Your task to perform on an android device: Go to wifi settings Image 0: 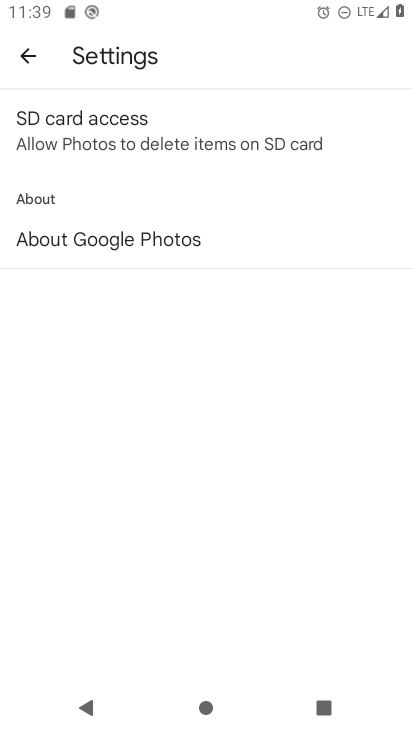
Step 0: press home button
Your task to perform on an android device: Go to wifi settings Image 1: 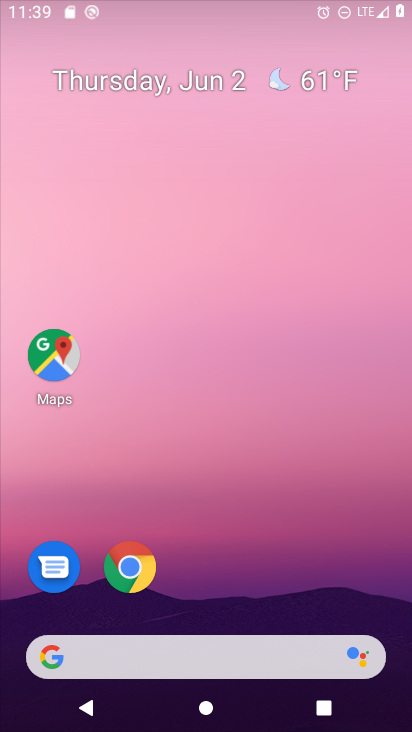
Step 1: drag from (234, 556) to (228, 158)
Your task to perform on an android device: Go to wifi settings Image 2: 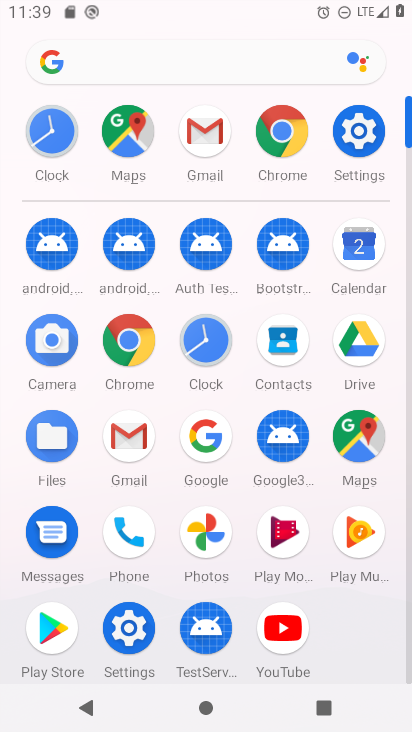
Step 2: click (372, 143)
Your task to perform on an android device: Go to wifi settings Image 3: 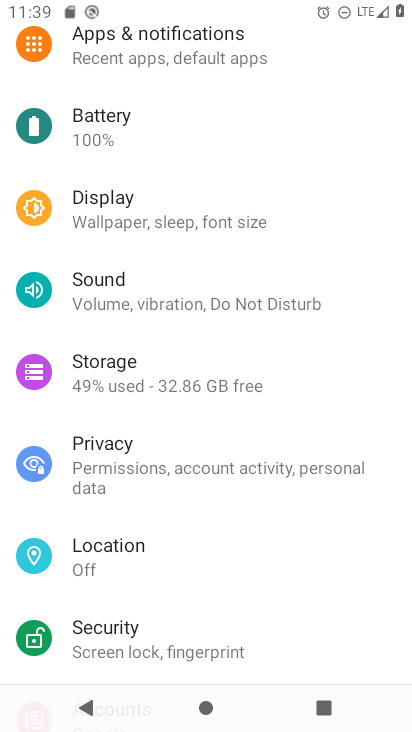
Step 3: drag from (185, 172) to (154, 571)
Your task to perform on an android device: Go to wifi settings Image 4: 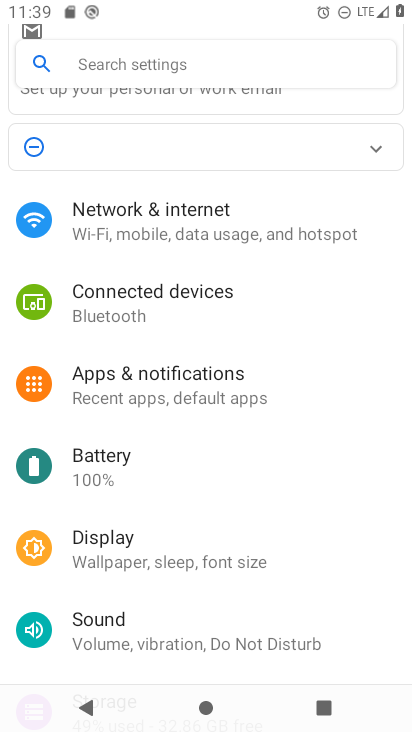
Step 4: click (143, 206)
Your task to perform on an android device: Go to wifi settings Image 5: 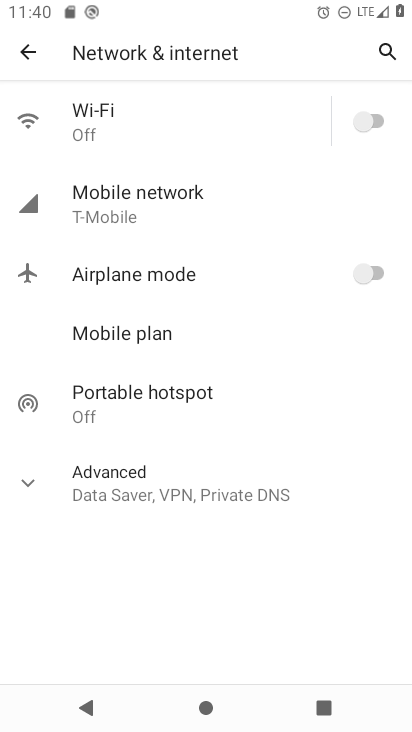
Step 5: click (298, 116)
Your task to perform on an android device: Go to wifi settings Image 6: 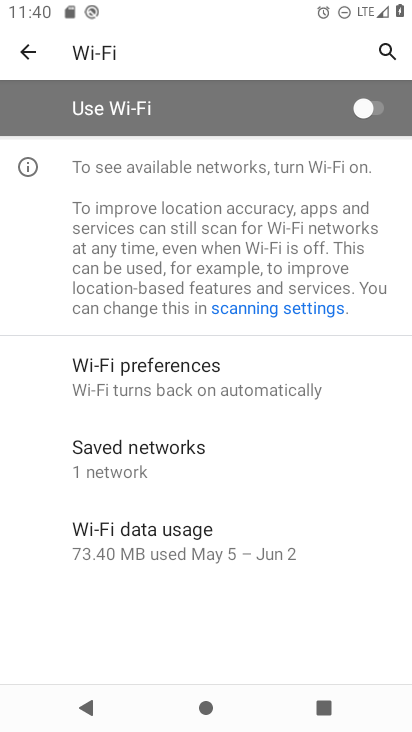
Step 6: click (266, 278)
Your task to perform on an android device: Go to wifi settings Image 7: 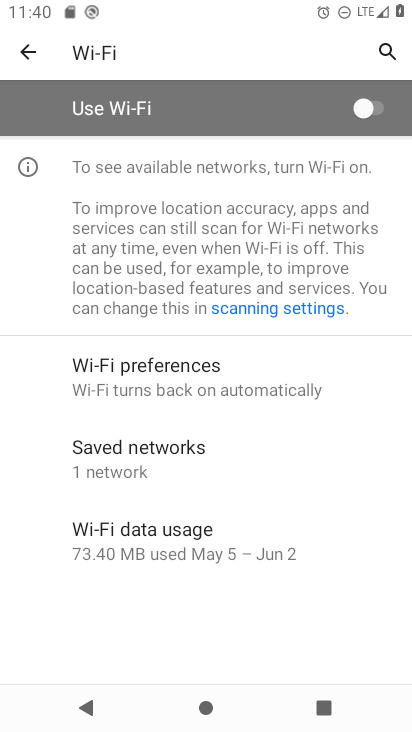
Step 7: click (367, 99)
Your task to perform on an android device: Go to wifi settings Image 8: 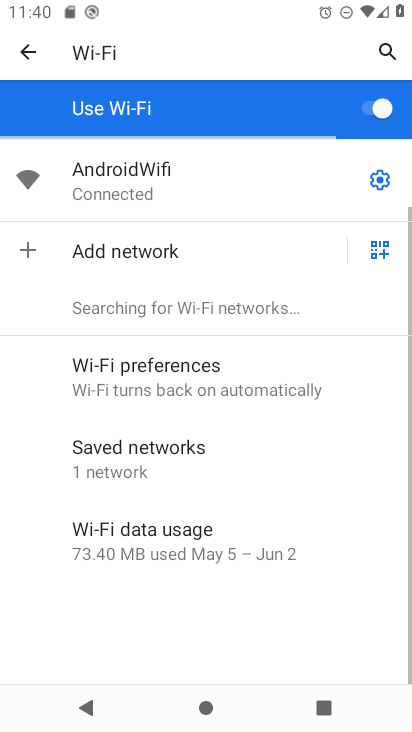
Step 8: click (383, 173)
Your task to perform on an android device: Go to wifi settings Image 9: 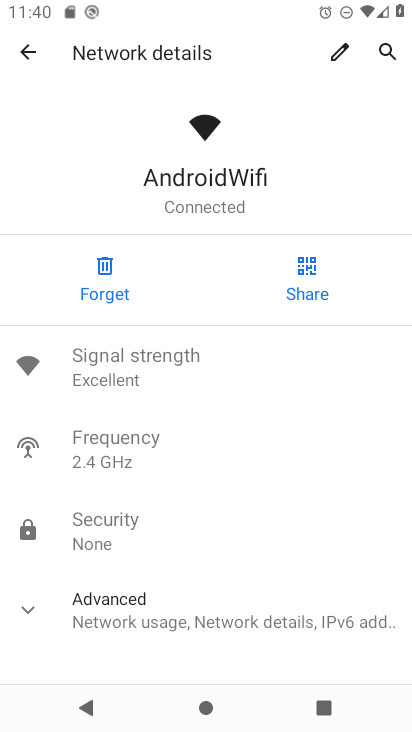
Step 9: task complete